Your task to perform on an android device: find snoozed emails in the gmail app Image 0: 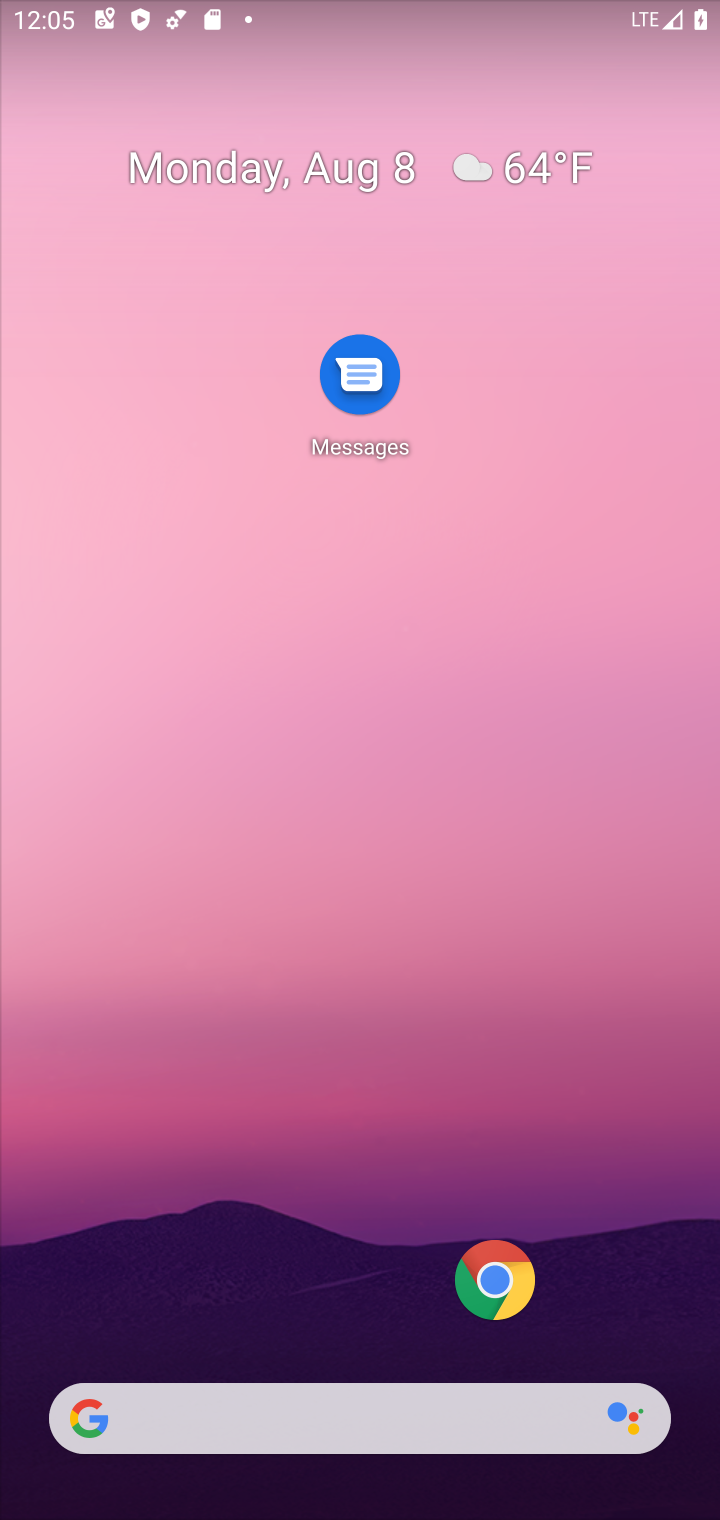
Step 0: drag from (377, 1295) to (383, 71)
Your task to perform on an android device: find snoozed emails in the gmail app Image 1: 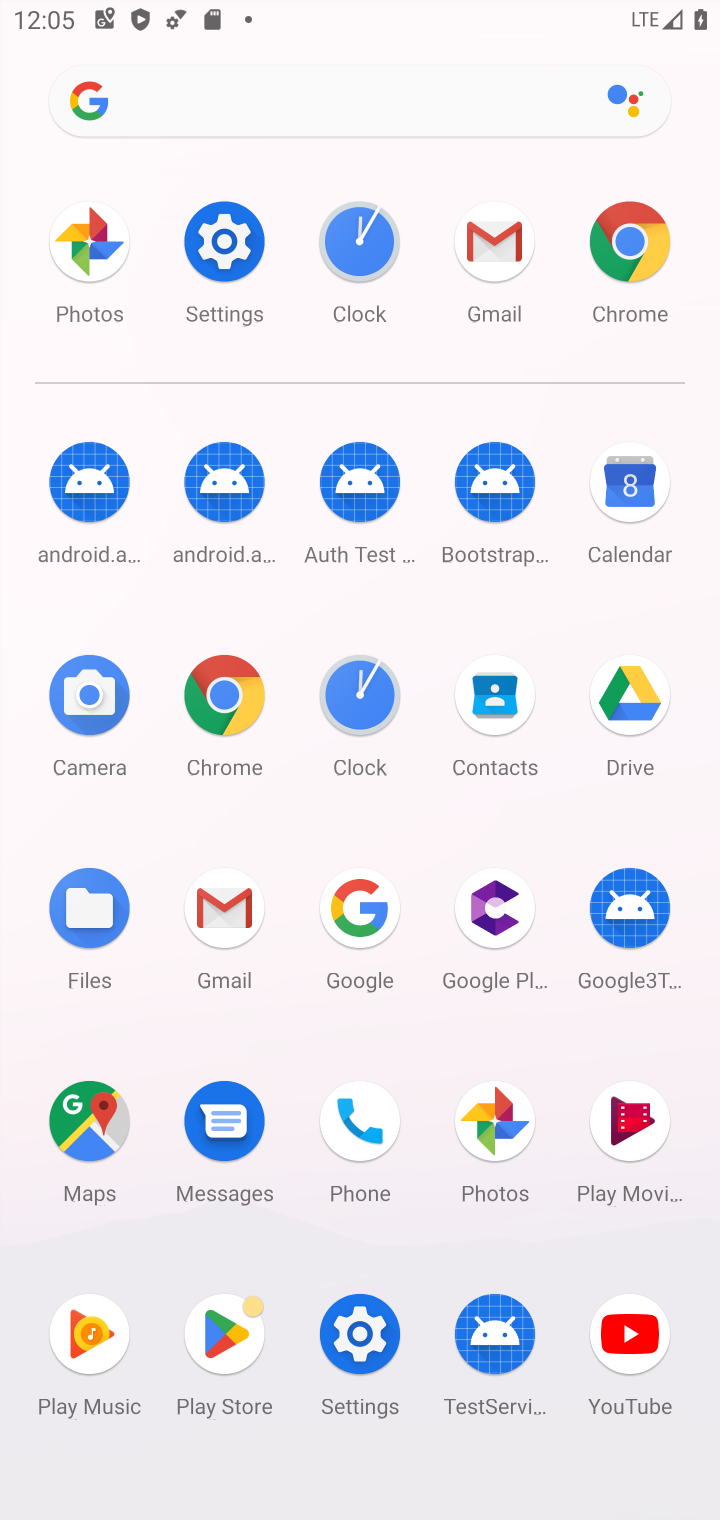
Step 1: click (491, 239)
Your task to perform on an android device: find snoozed emails in the gmail app Image 2: 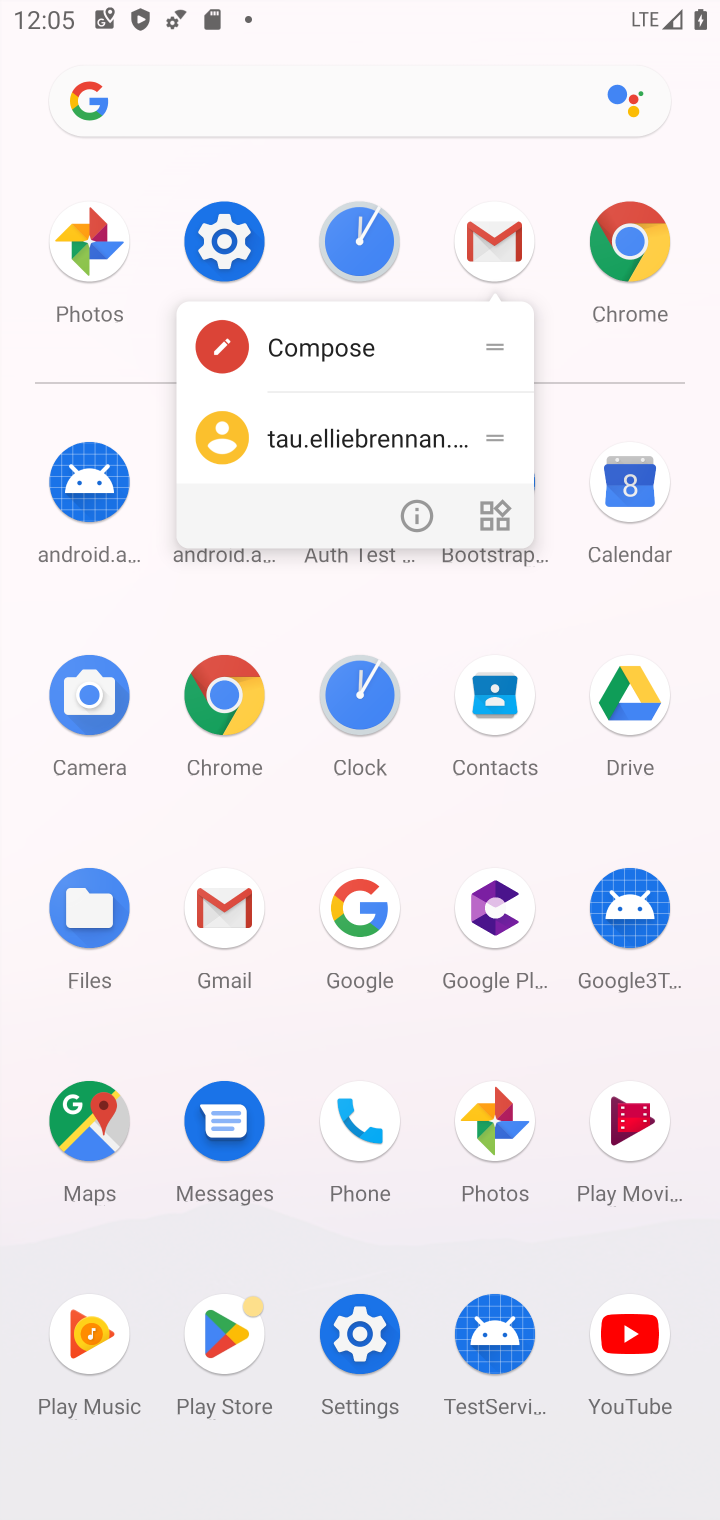
Step 2: click (491, 239)
Your task to perform on an android device: find snoozed emails in the gmail app Image 3: 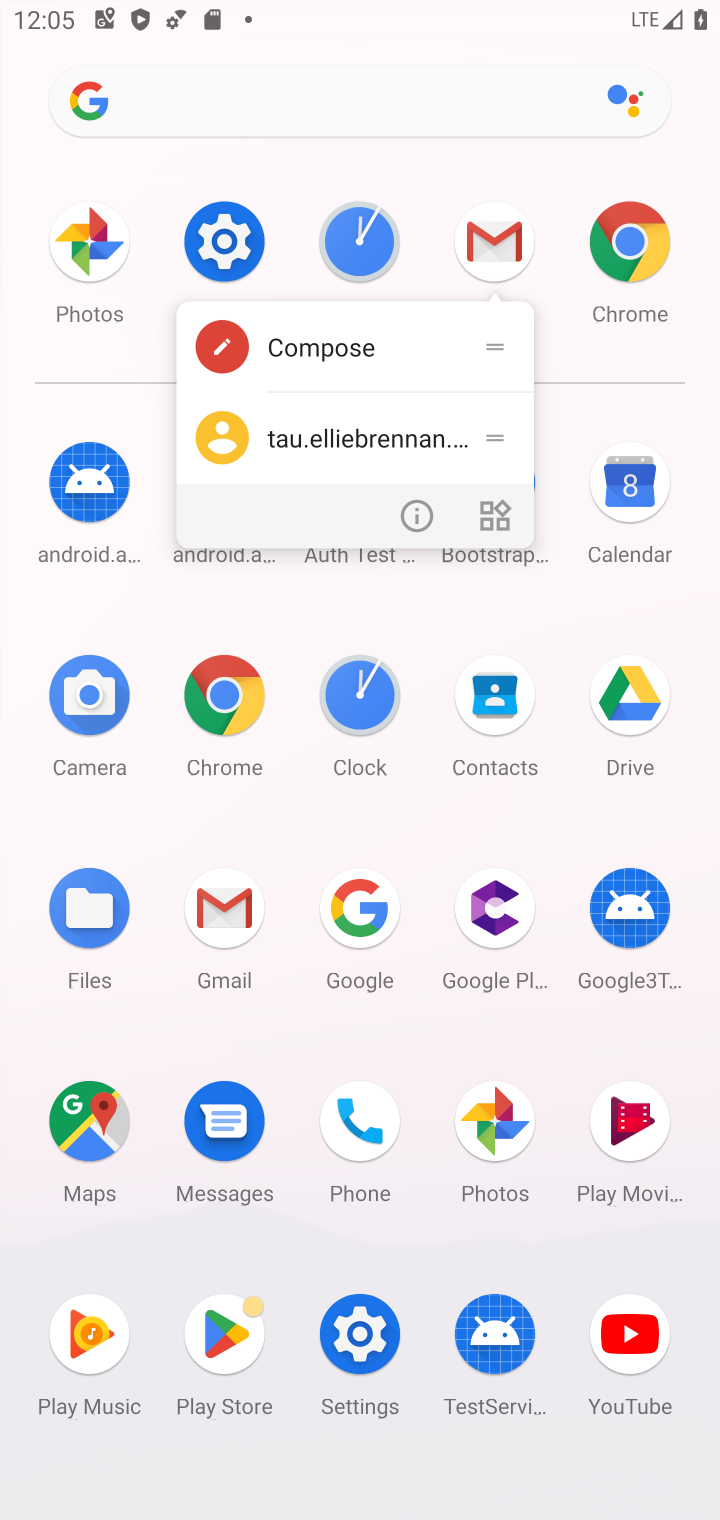
Step 3: click (516, 246)
Your task to perform on an android device: find snoozed emails in the gmail app Image 4: 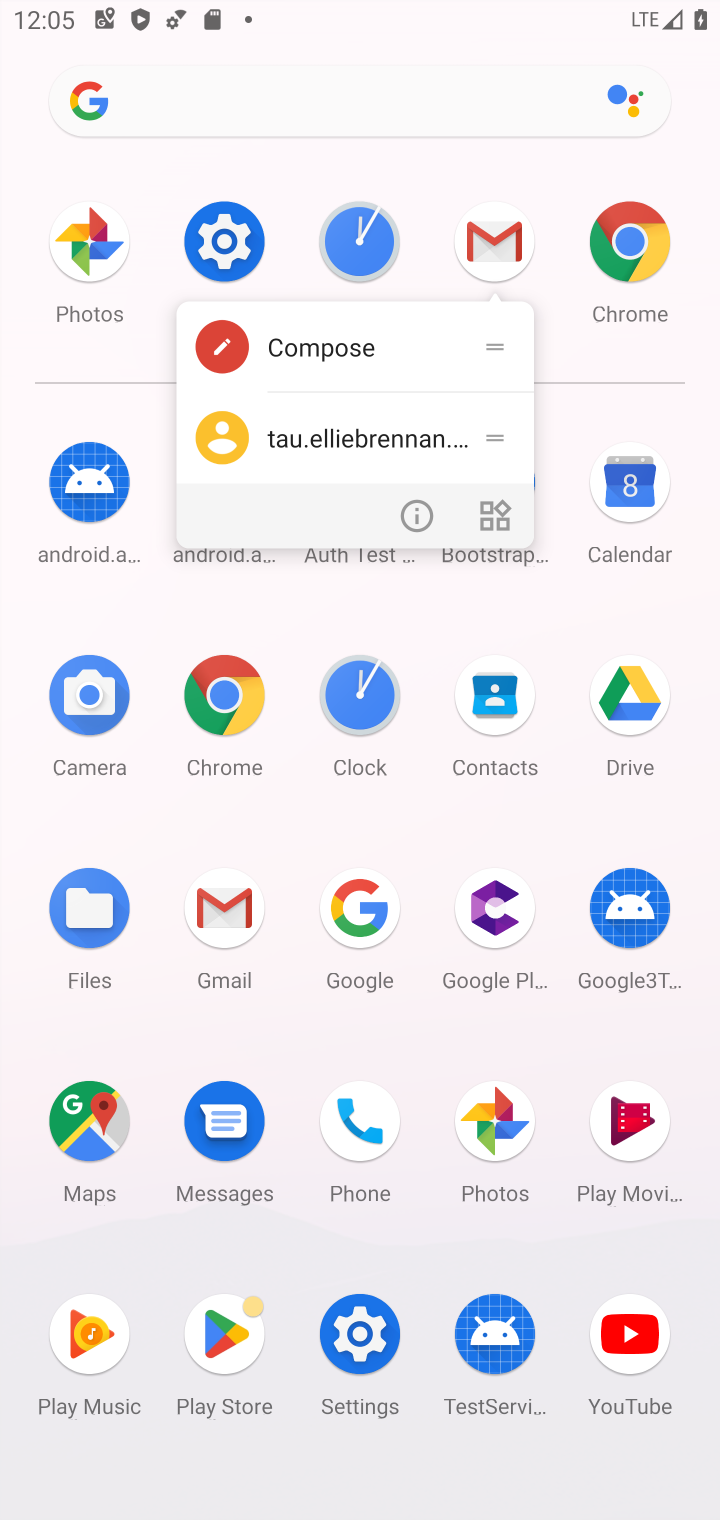
Step 4: click (492, 232)
Your task to perform on an android device: find snoozed emails in the gmail app Image 5: 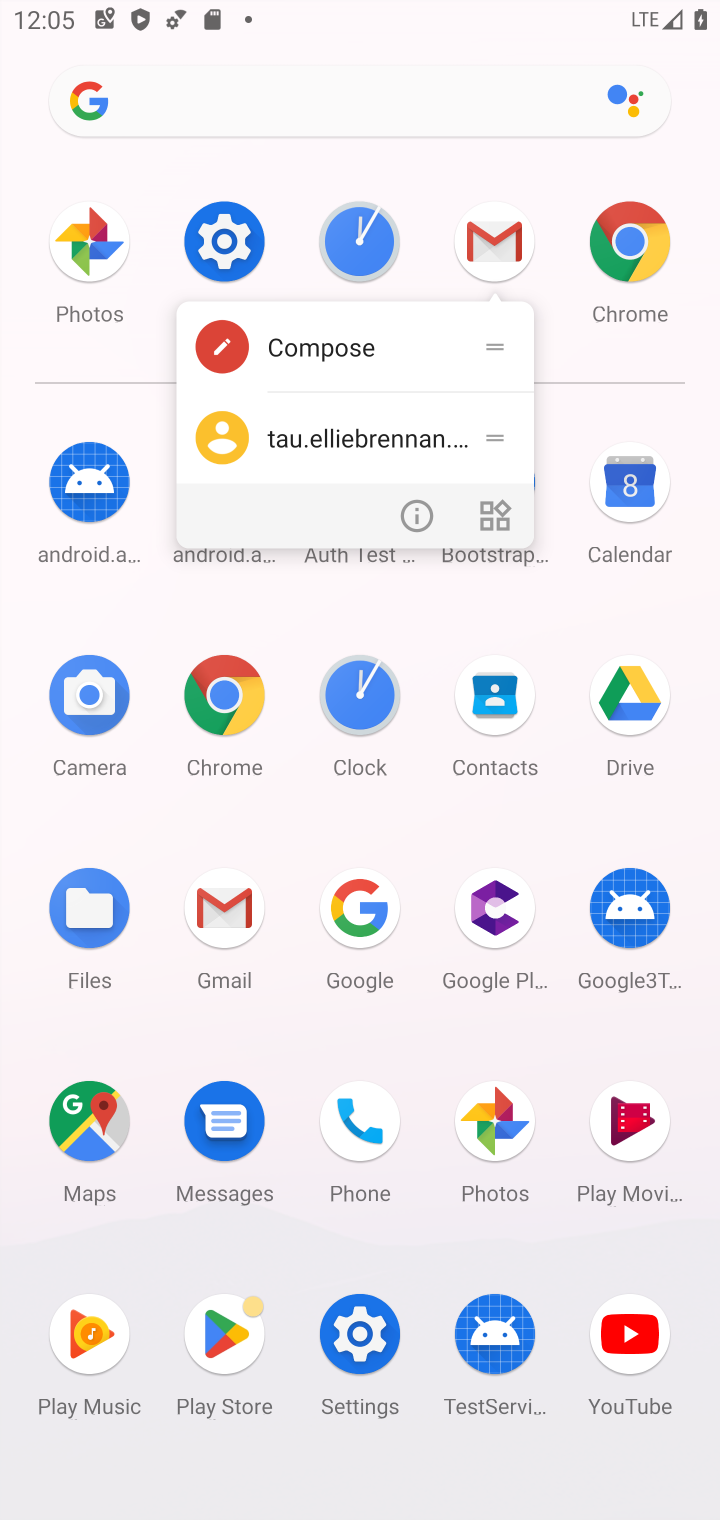
Step 5: click (502, 263)
Your task to perform on an android device: find snoozed emails in the gmail app Image 6: 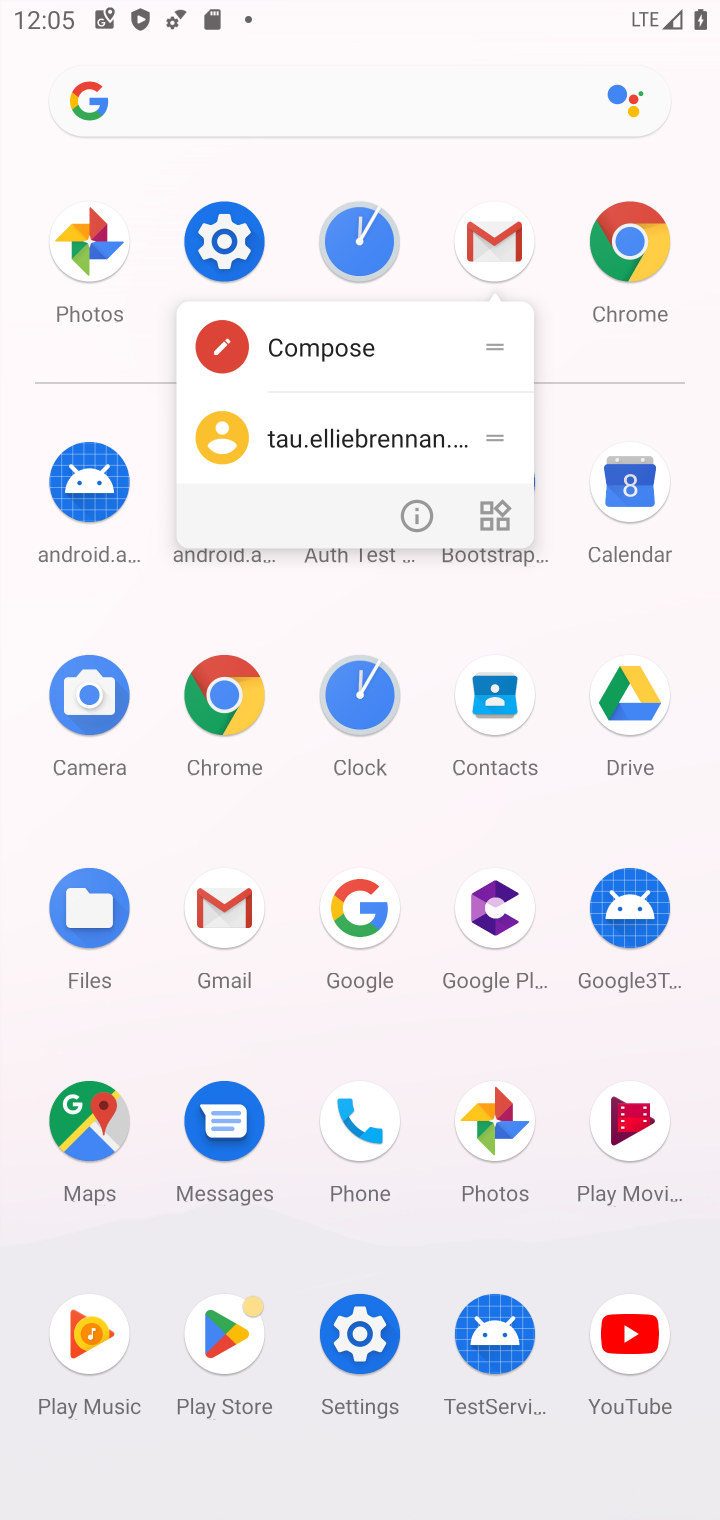
Step 6: click (508, 242)
Your task to perform on an android device: find snoozed emails in the gmail app Image 7: 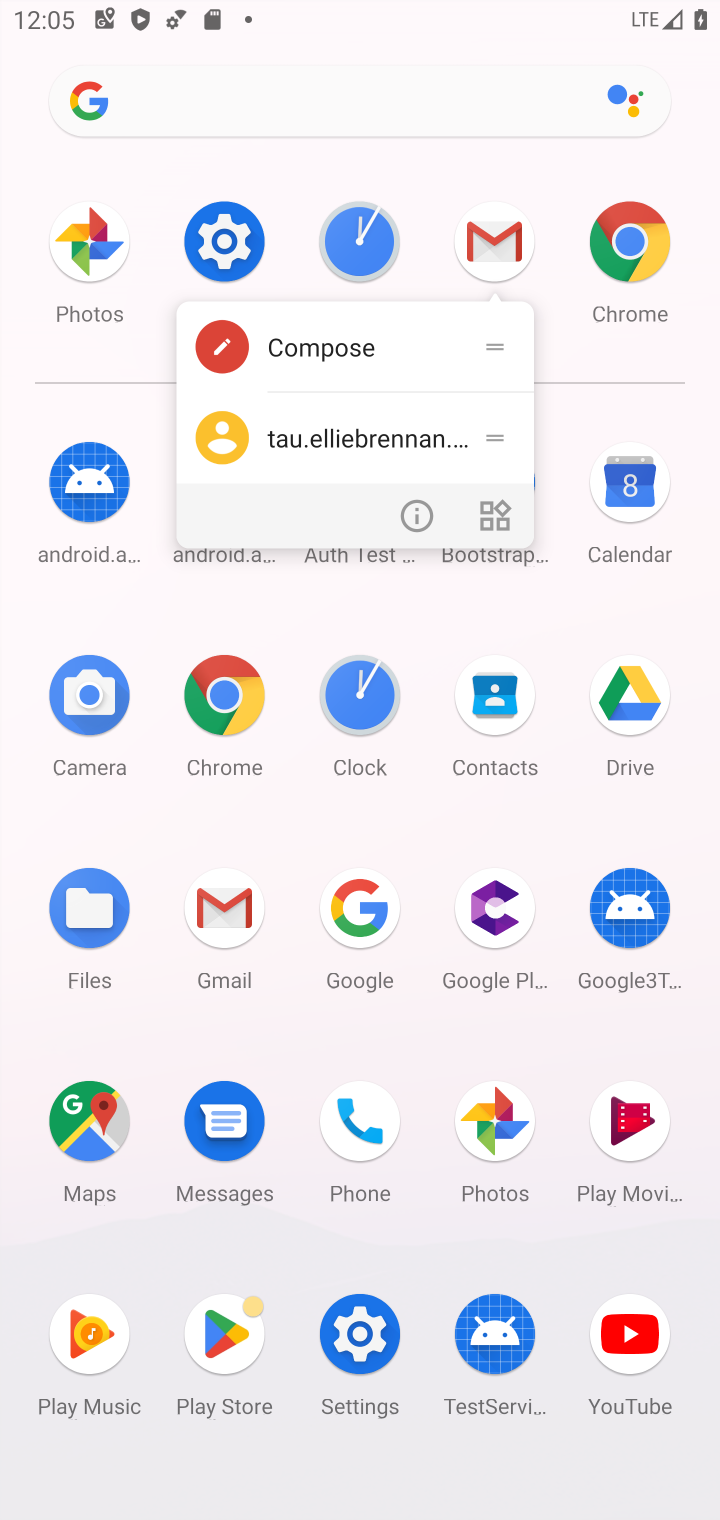
Step 7: click (502, 253)
Your task to perform on an android device: find snoozed emails in the gmail app Image 8: 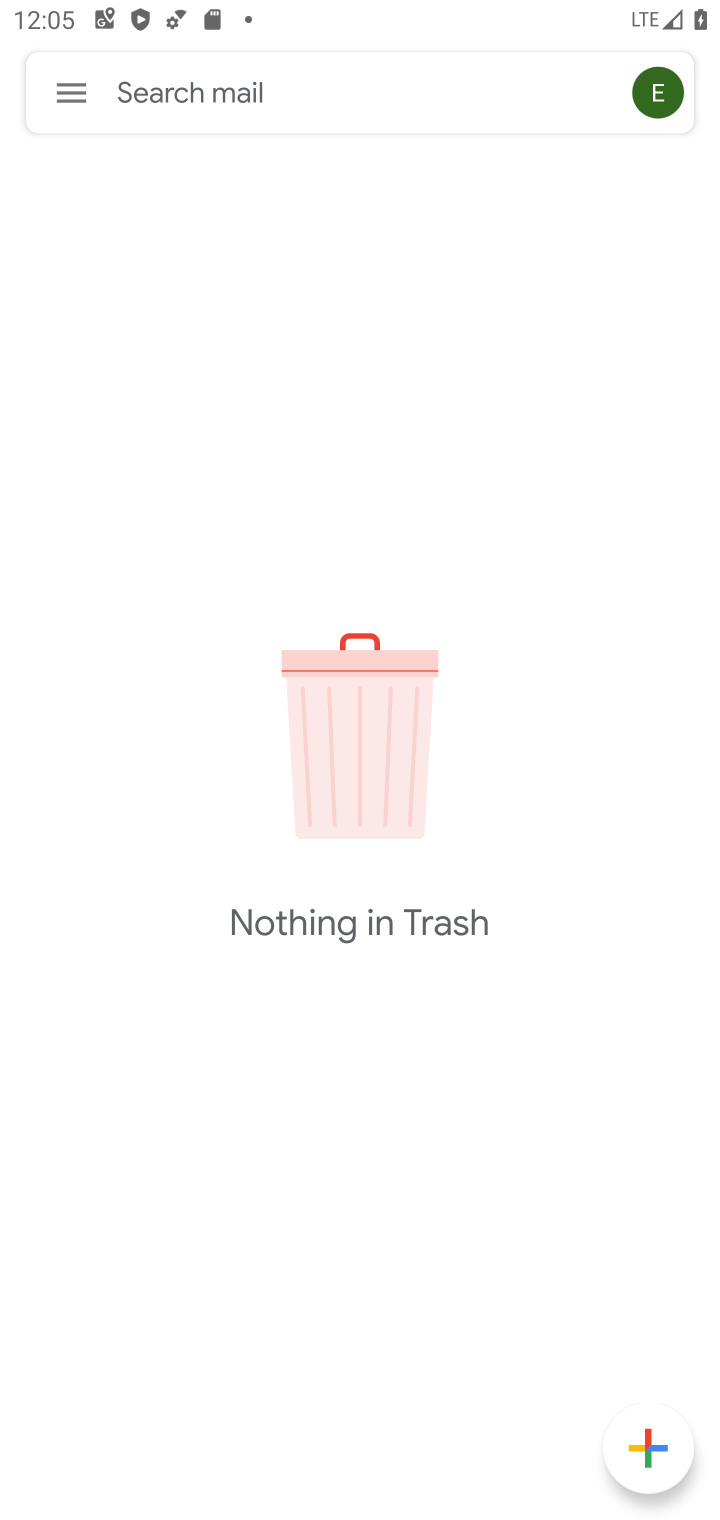
Step 8: click (88, 96)
Your task to perform on an android device: find snoozed emails in the gmail app Image 9: 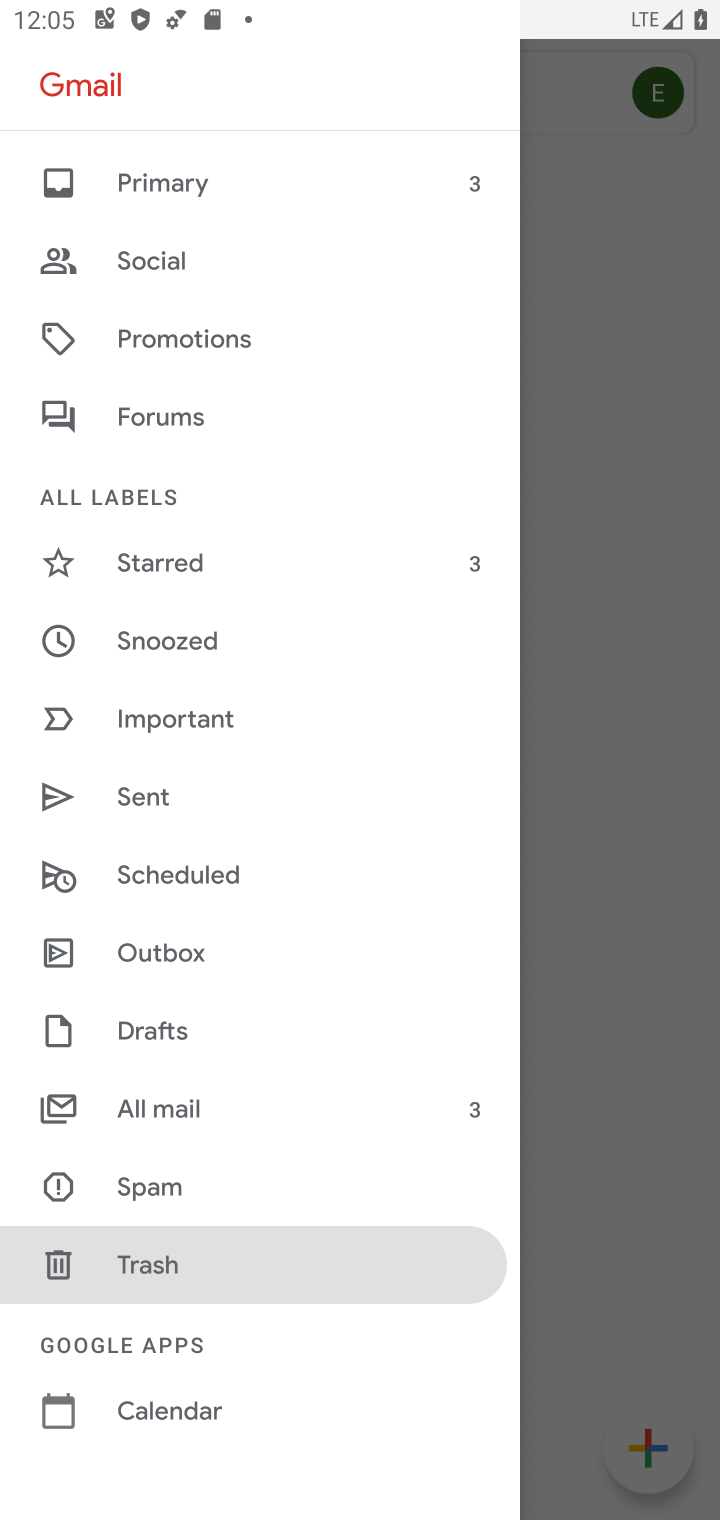
Step 9: click (185, 635)
Your task to perform on an android device: find snoozed emails in the gmail app Image 10: 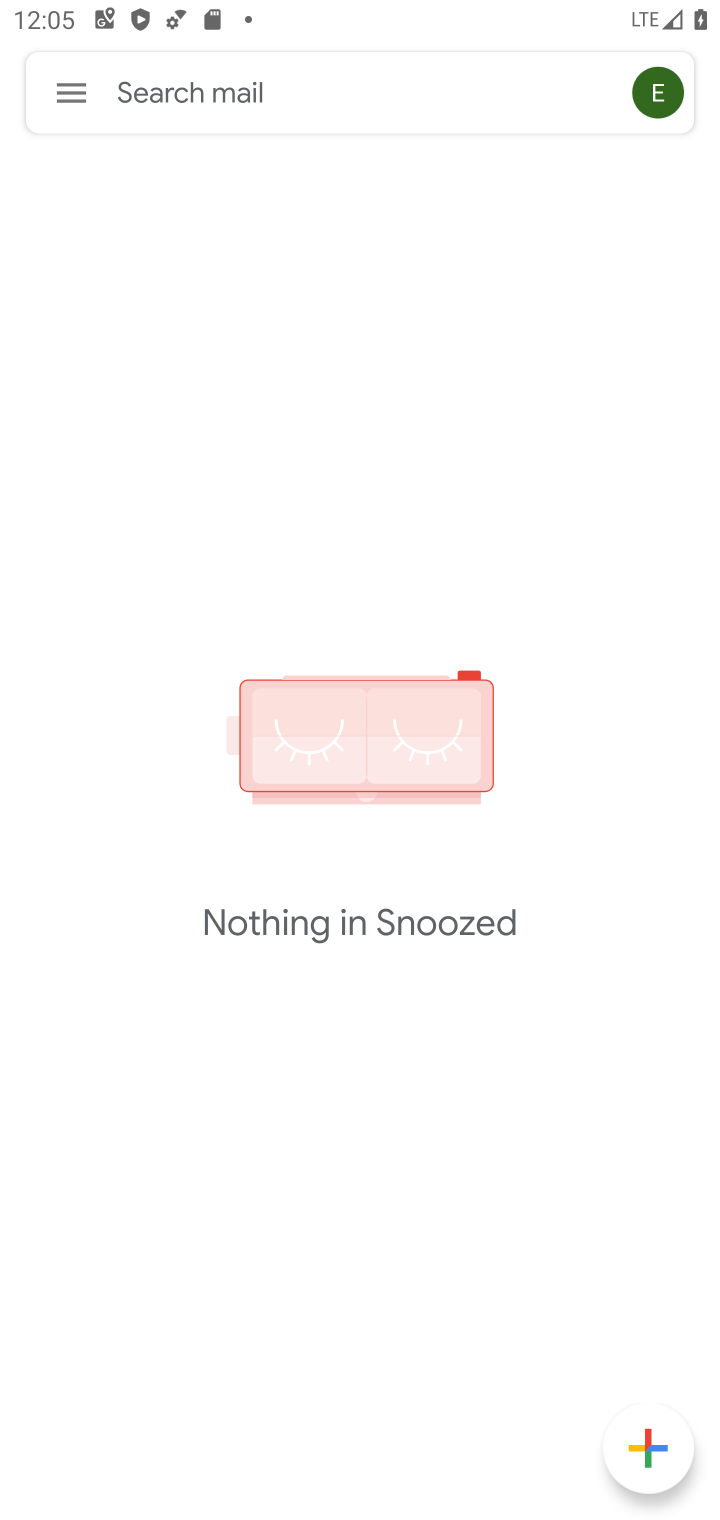
Step 10: task complete